Your task to perform on an android device: toggle priority inbox in the gmail app Image 0: 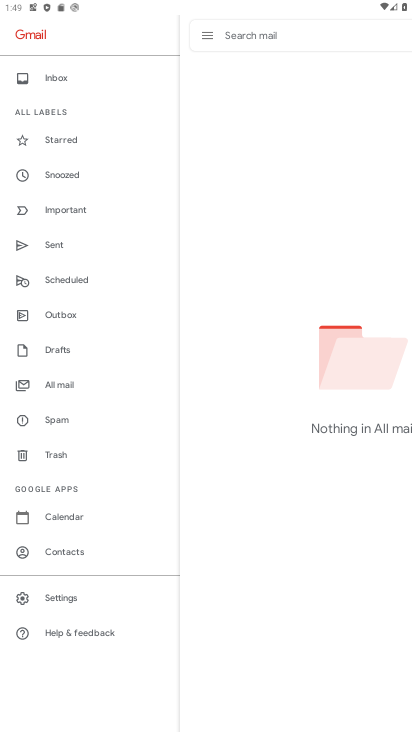
Step 0: click (73, 598)
Your task to perform on an android device: toggle priority inbox in the gmail app Image 1: 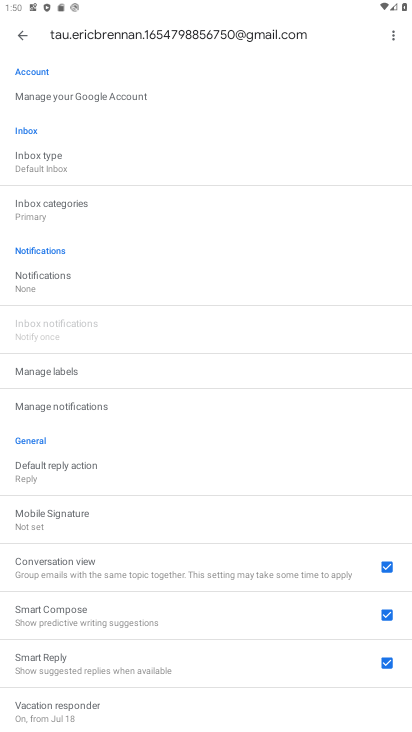
Step 1: click (52, 166)
Your task to perform on an android device: toggle priority inbox in the gmail app Image 2: 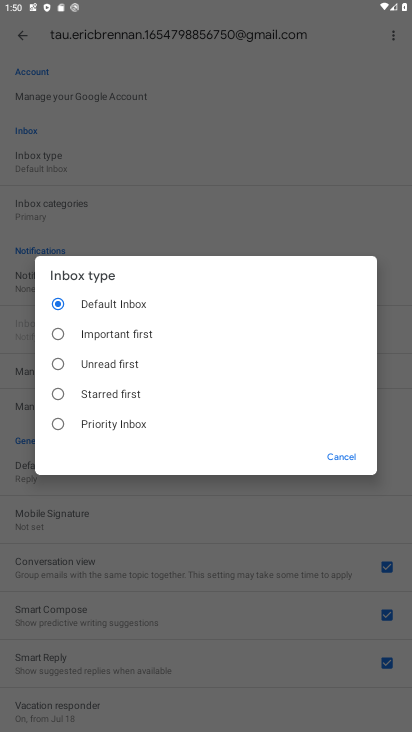
Step 2: click (116, 422)
Your task to perform on an android device: toggle priority inbox in the gmail app Image 3: 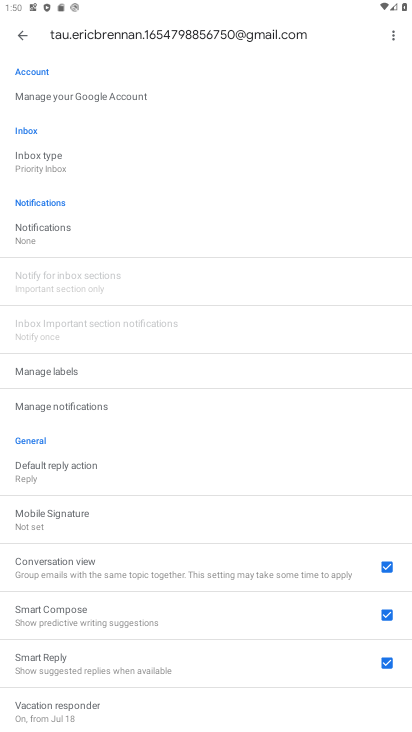
Step 3: task complete